Your task to perform on an android device: Open calendar and show me the third week of next month Image 0: 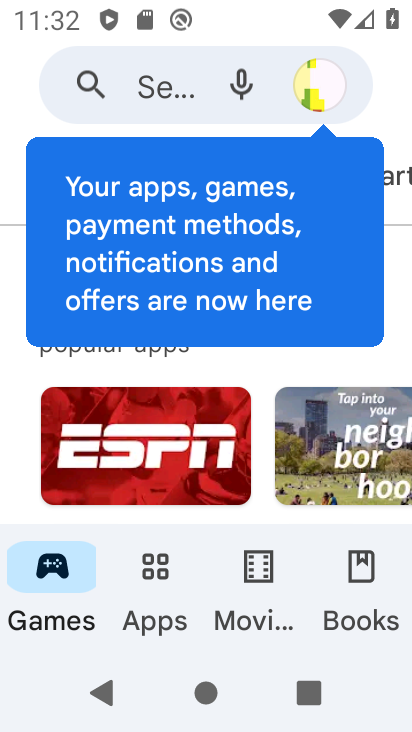
Step 0: press home button
Your task to perform on an android device: Open calendar and show me the third week of next month Image 1: 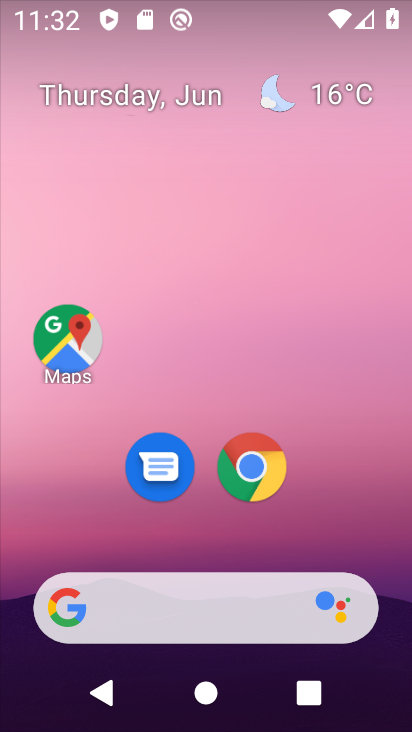
Step 1: drag from (399, 613) to (322, 103)
Your task to perform on an android device: Open calendar and show me the third week of next month Image 2: 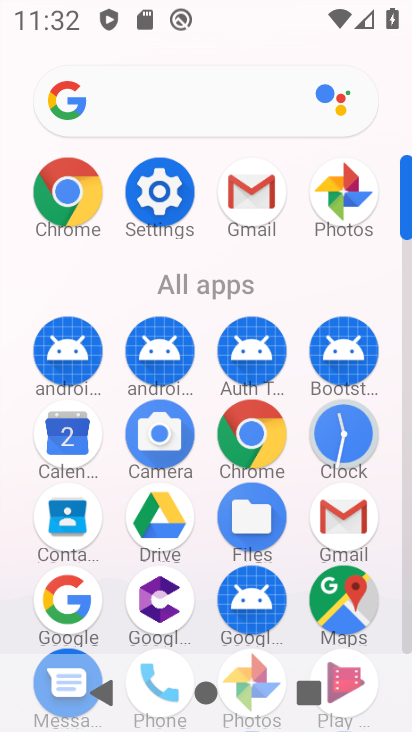
Step 2: click (405, 645)
Your task to perform on an android device: Open calendar and show me the third week of next month Image 3: 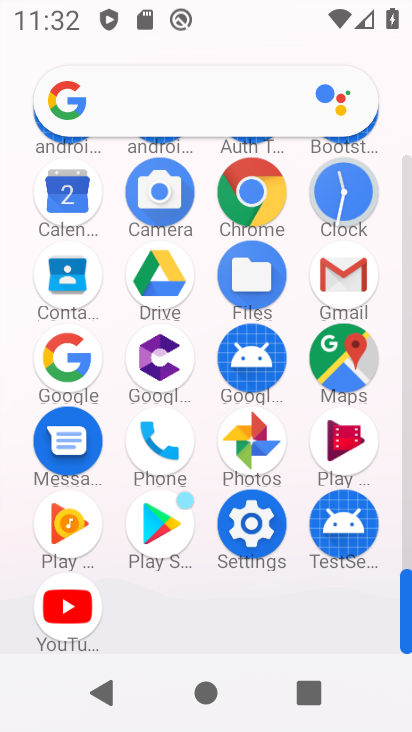
Step 3: click (67, 197)
Your task to perform on an android device: Open calendar and show me the third week of next month Image 4: 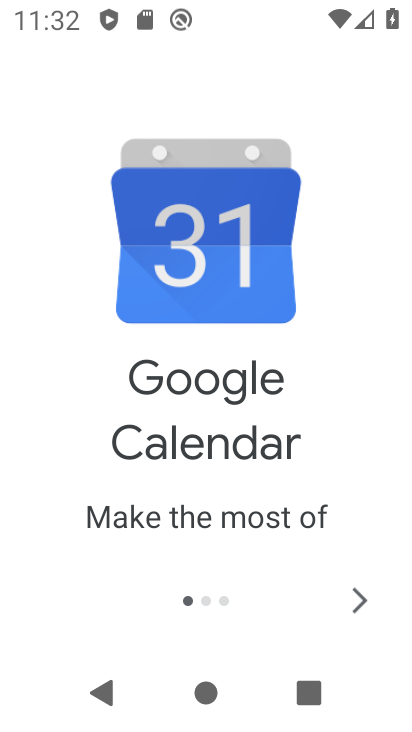
Step 4: click (357, 599)
Your task to perform on an android device: Open calendar and show me the third week of next month Image 5: 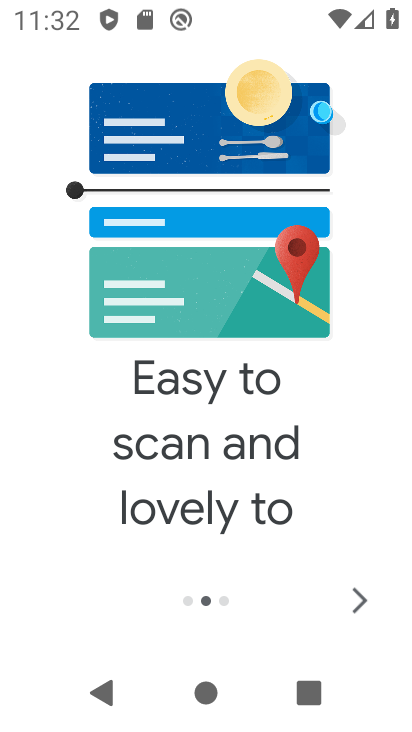
Step 5: click (357, 599)
Your task to perform on an android device: Open calendar and show me the third week of next month Image 6: 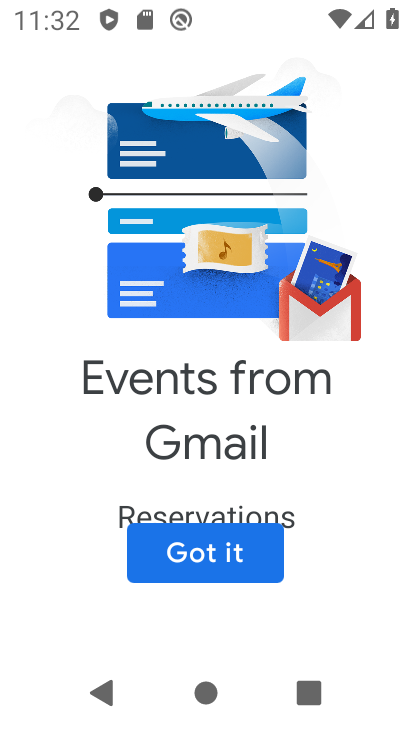
Step 6: click (194, 554)
Your task to perform on an android device: Open calendar and show me the third week of next month Image 7: 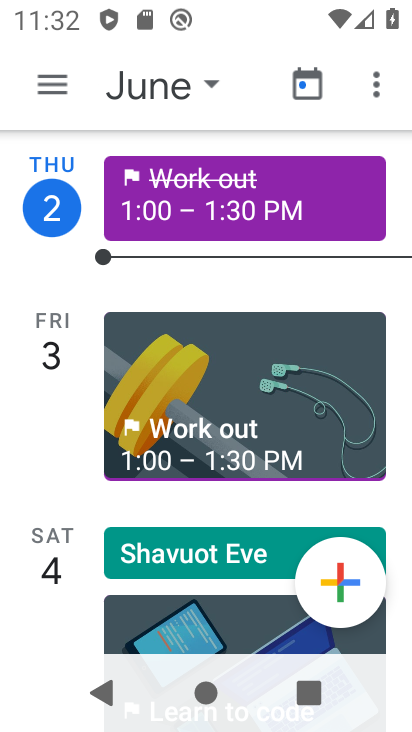
Step 7: click (62, 86)
Your task to perform on an android device: Open calendar and show me the third week of next month Image 8: 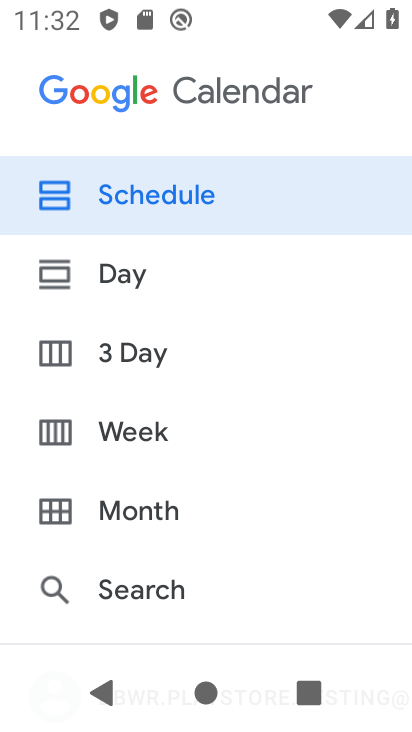
Step 8: click (132, 439)
Your task to perform on an android device: Open calendar and show me the third week of next month Image 9: 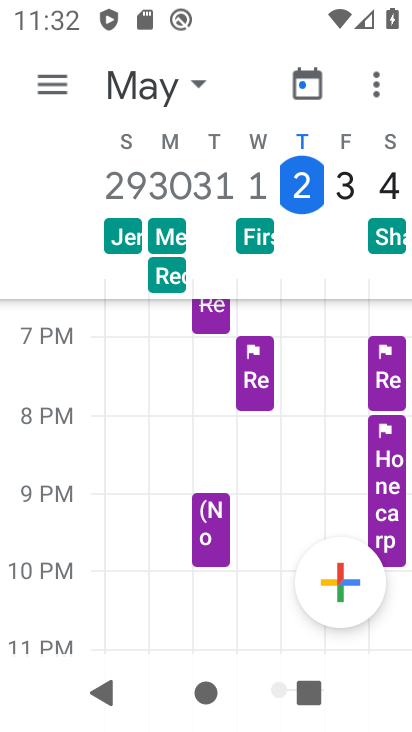
Step 9: click (191, 87)
Your task to perform on an android device: Open calendar and show me the third week of next month Image 10: 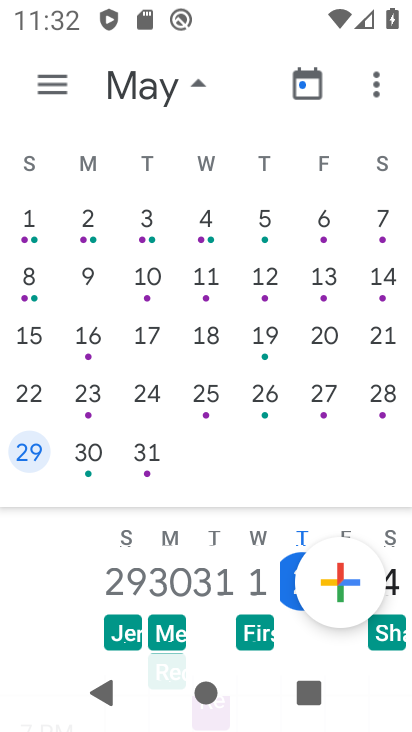
Step 10: task complete